Your task to perform on an android device: turn on the 24-hour format for clock Image 0: 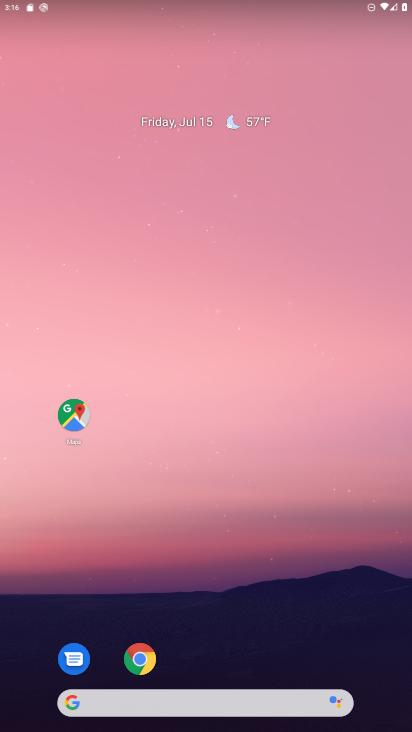
Step 0: drag from (214, 666) to (230, 147)
Your task to perform on an android device: turn on the 24-hour format for clock Image 1: 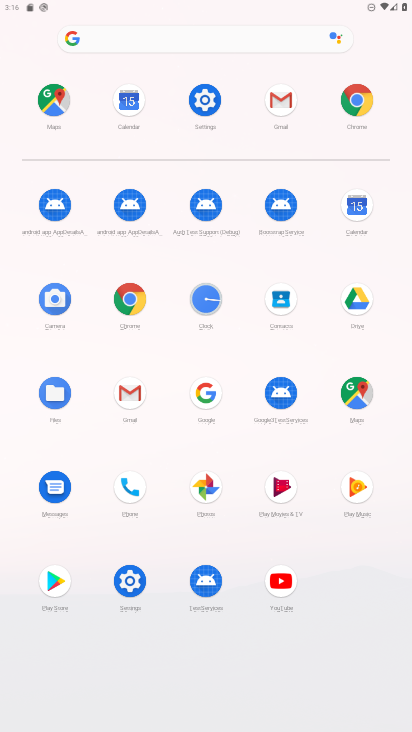
Step 1: click (137, 585)
Your task to perform on an android device: turn on the 24-hour format for clock Image 2: 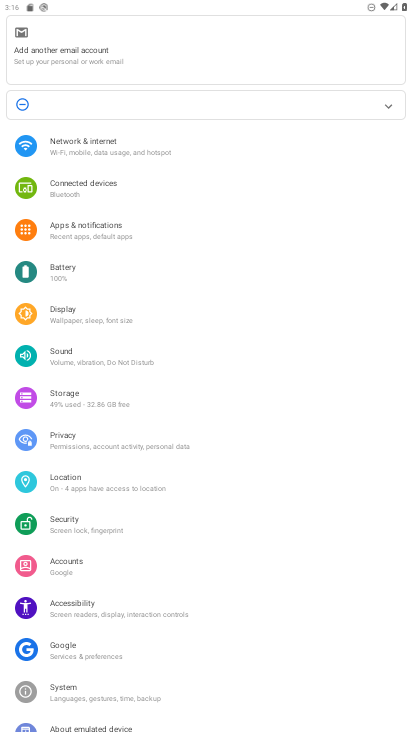
Step 2: click (131, 593)
Your task to perform on an android device: turn on the 24-hour format for clock Image 3: 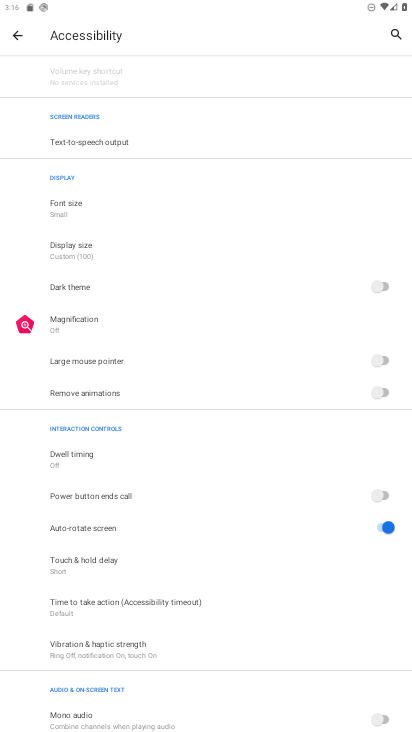
Step 3: click (153, 427)
Your task to perform on an android device: turn on the 24-hour format for clock Image 4: 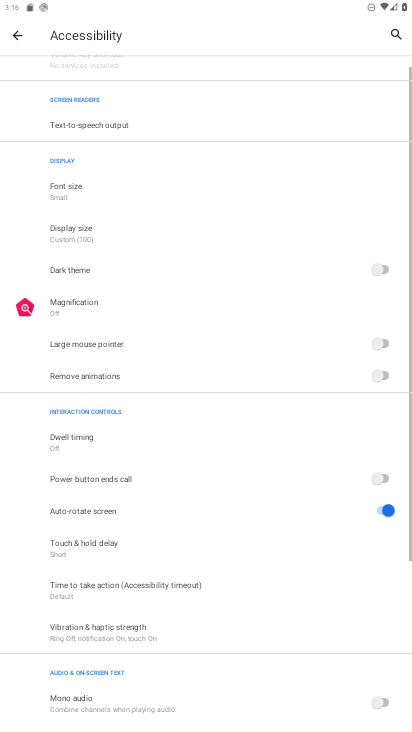
Step 4: click (17, 33)
Your task to perform on an android device: turn on the 24-hour format for clock Image 5: 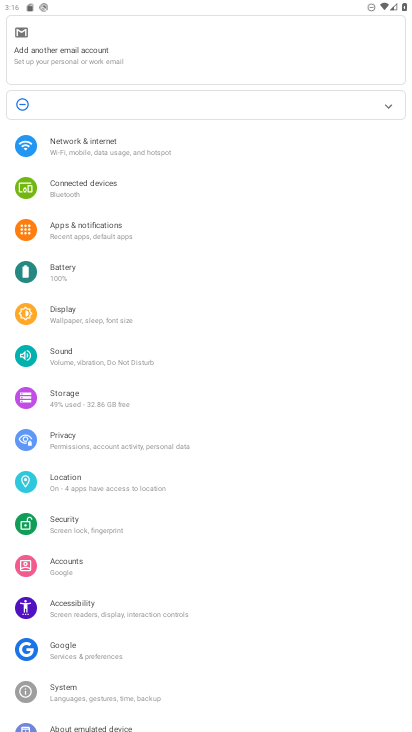
Step 5: drag from (118, 660) to (162, 343)
Your task to perform on an android device: turn on the 24-hour format for clock Image 6: 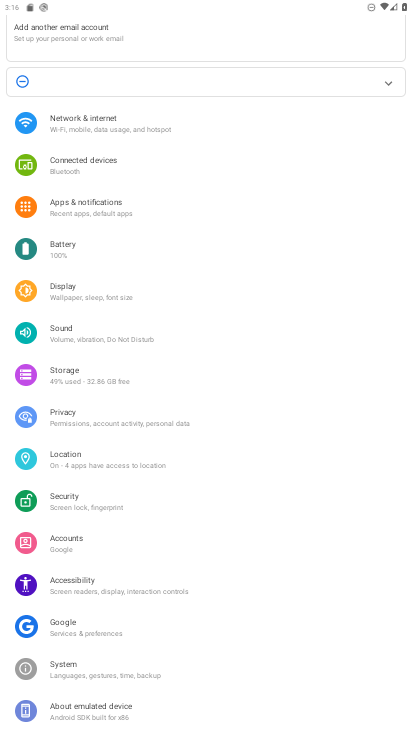
Step 6: click (98, 673)
Your task to perform on an android device: turn on the 24-hour format for clock Image 7: 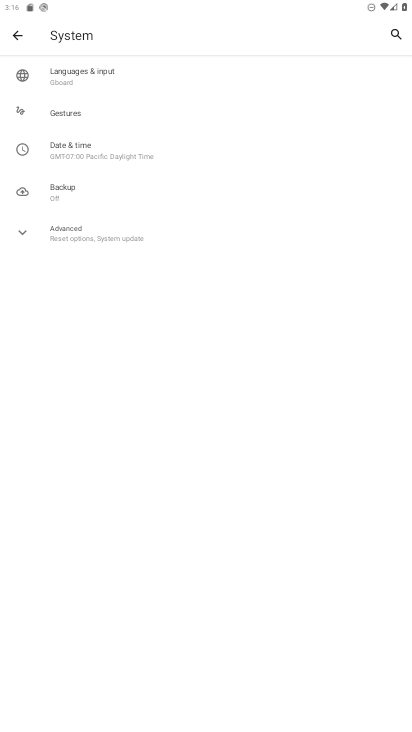
Step 7: click (125, 155)
Your task to perform on an android device: turn on the 24-hour format for clock Image 8: 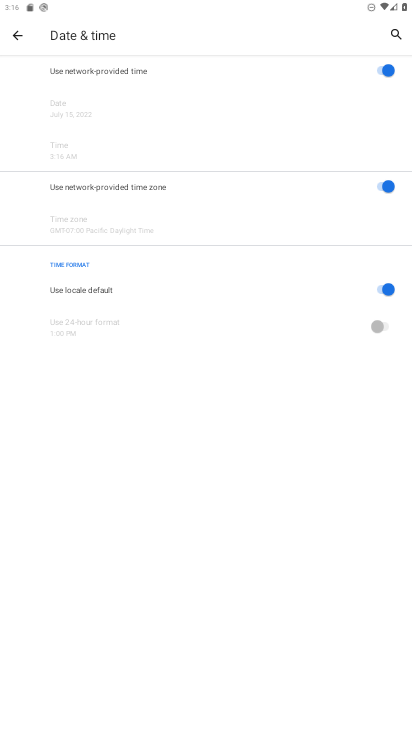
Step 8: click (378, 292)
Your task to perform on an android device: turn on the 24-hour format for clock Image 9: 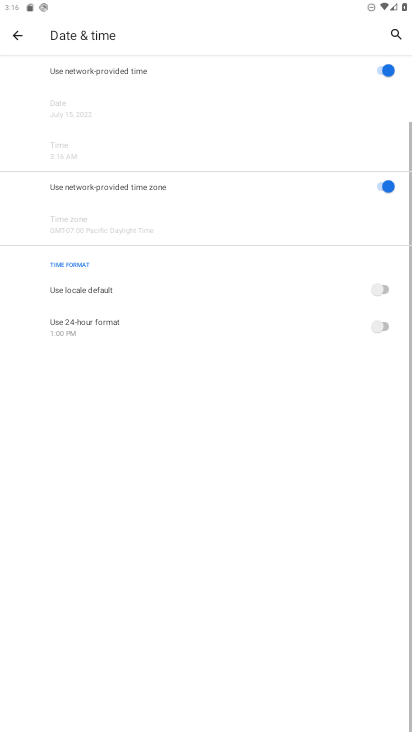
Step 9: click (401, 324)
Your task to perform on an android device: turn on the 24-hour format for clock Image 10: 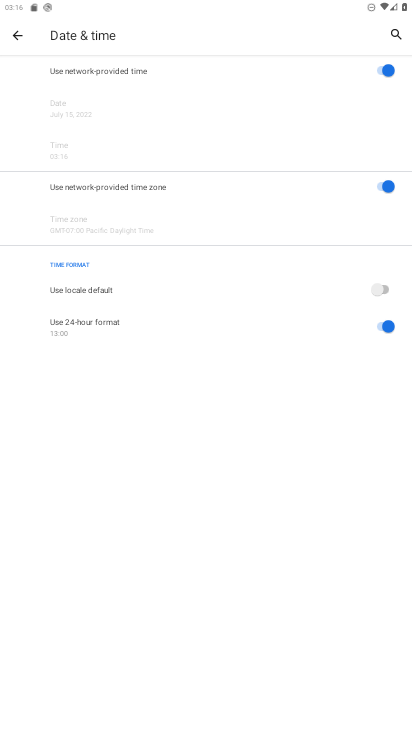
Step 10: task complete